Your task to perform on an android device: Clear the shopping cart on newegg. Add "beats solo 3" to the cart on newegg, then select checkout. Image 0: 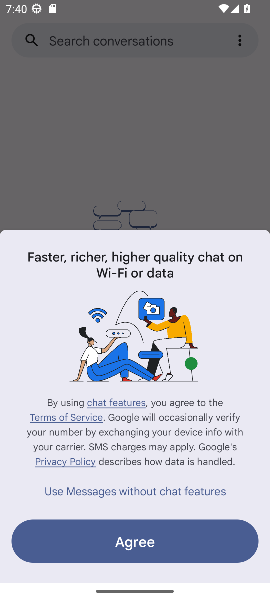
Step 0: press home button
Your task to perform on an android device: Clear the shopping cart on newegg. Add "beats solo 3" to the cart on newegg, then select checkout. Image 1: 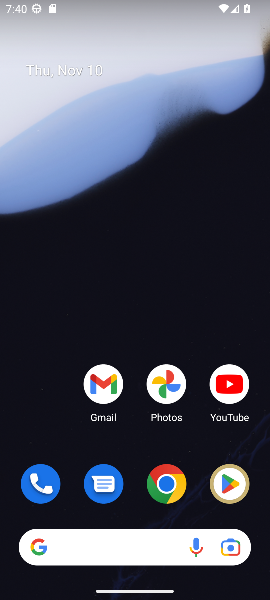
Step 1: click (163, 487)
Your task to perform on an android device: Clear the shopping cart on newegg. Add "beats solo 3" to the cart on newegg, then select checkout. Image 2: 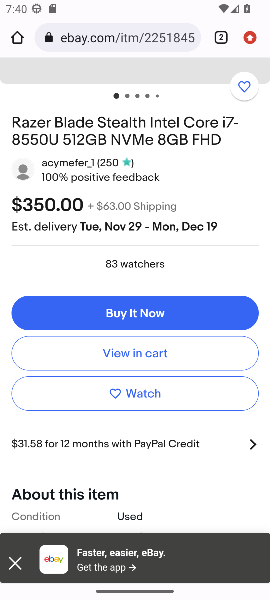
Step 2: click (100, 39)
Your task to perform on an android device: Clear the shopping cart on newegg. Add "beats solo 3" to the cart on newegg, then select checkout. Image 3: 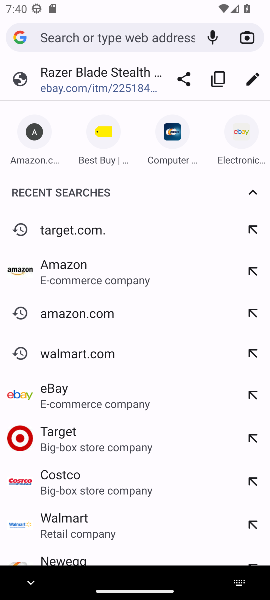
Step 3: type "newegg.com"
Your task to perform on an android device: Clear the shopping cart on newegg. Add "beats solo 3" to the cart on newegg, then select checkout. Image 4: 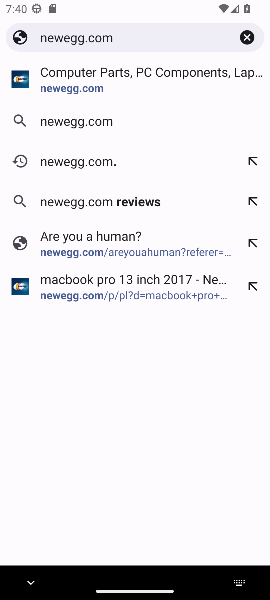
Step 4: click (73, 90)
Your task to perform on an android device: Clear the shopping cart on newegg. Add "beats solo 3" to the cart on newegg, then select checkout. Image 5: 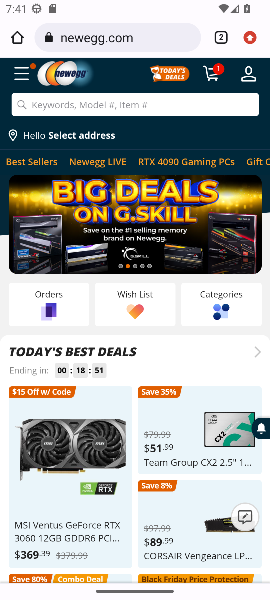
Step 5: click (217, 76)
Your task to perform on an android device: Clear the shopping cart on newegg. Add "beats solo 3" to the cart on newegg, then select checkout. Image 6: 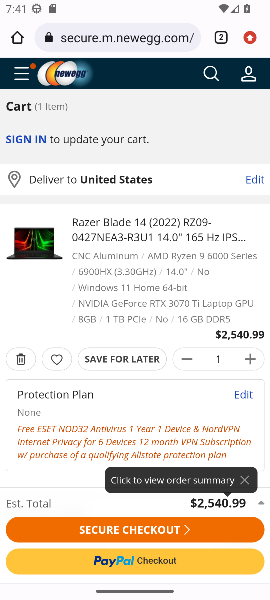
Step 6: click (22, 357)
Your task to perform on an android device: Clear the shopping cart on newegg. Add "beats solo 3" to the cart on newegg, then select checkout. Image 7: 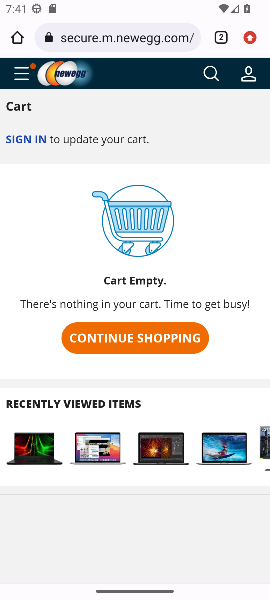
Step 7: click (152, 341)
Your task to perform on an android device: Clear the shopping cart on newegg. Add "beats solo 3" to the cart on newegg, then select checkout. Image 8: 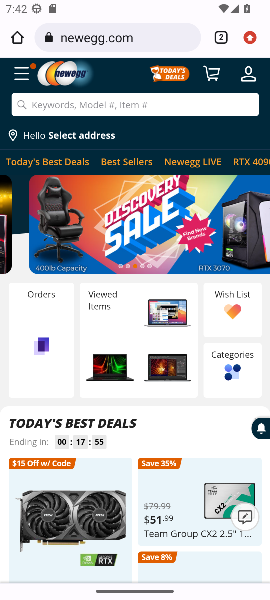
Step 8: click (79, 100)
Your task to perform on an android device: Clear the shopping cart on newegg. Add "beats solo 3" to the cart on newegg, then select checkout. Image 9: 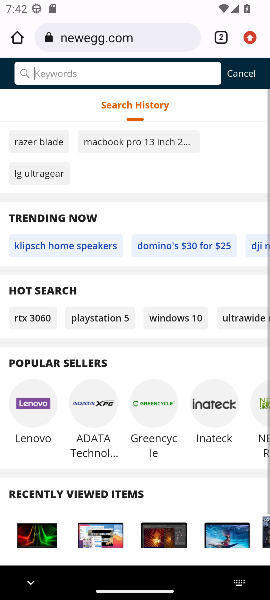
Step 9: type "beat solo 3"
Your task to perform on an android device: Clear the shopping cart on newegg. Add "beats solo 3" to the cart on newegg, then select checkout. Image 10: 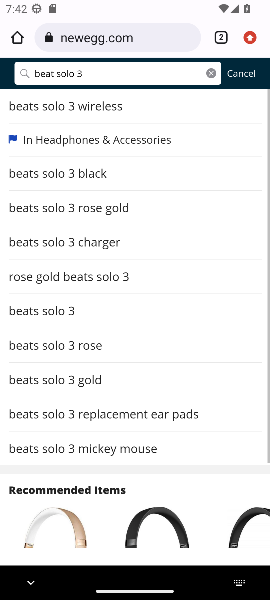
Step 10: click (43, 315)
Your task to perform on an android device: Clear the shopping cart on newegg. Add "beats solo 3" to the cart on newegg, then select checkout. Image 11: 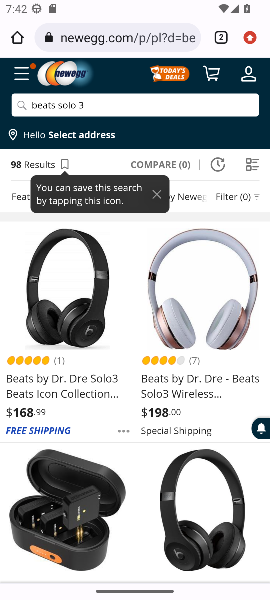
Step 11: click (49, 378)
Your task to perform on an android device: Clear the shopping cart on newegg. Add "beats solo 3" to the cart on newegg, then select checkout. Image 12: 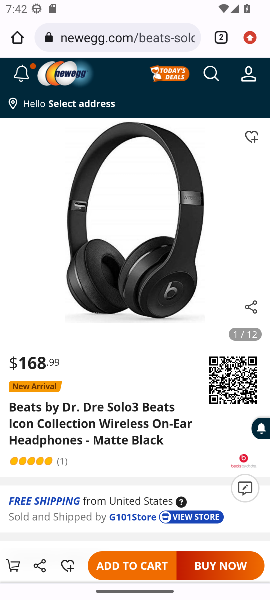
Step 12: click (132, 571)
Your task to perform on an android device: Clear the shopping cart on newegg. Add "beats solo 3" to the cart on newegg, then select checkout. Image 13: 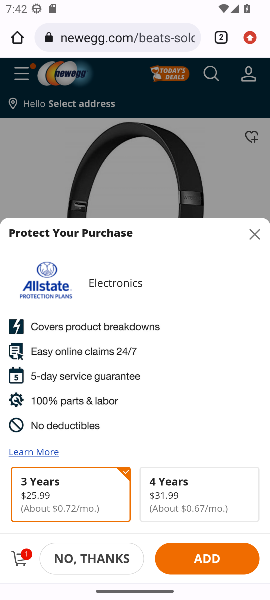
Step 13: click (18, 564)
Your task to perform on an android device: Clear the shopping cart on newegg. Add "beats solo 3" to the cart on newegg, then select checkout. Image 14: 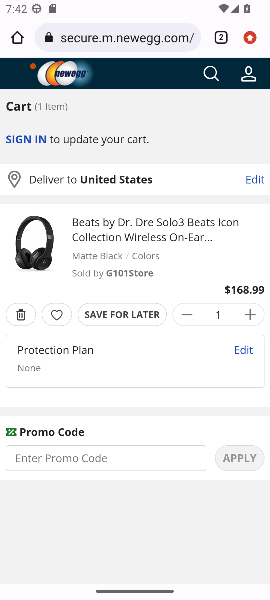
Step 14: click (113, 528)
Your task to perform on an android device: Clear the shopping cart on newegg. Add "beats solo 3" to the cart on newegg, then select checkout. Image 15: 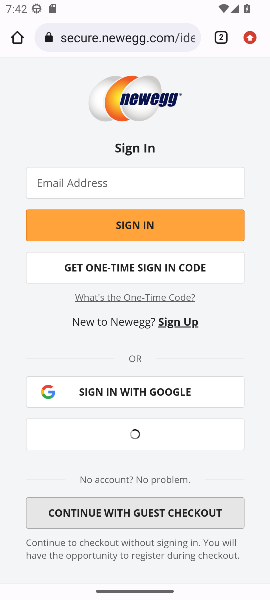
Step 15: click (113, 528)
Your task to perform on an android device: Clear the shopping cart on newegg. Add "beats solo 3" to the cart on newegg, then select checkout. Image 16: 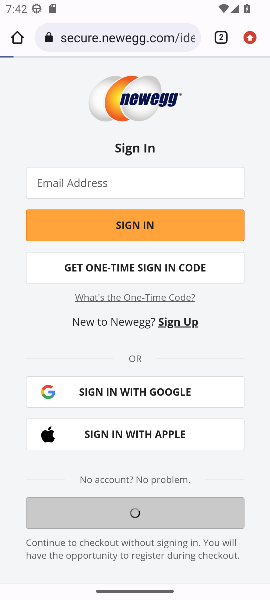
Step 16: task complete